Your task to perform on an android device: delete a single message in the gmail app Image 0: 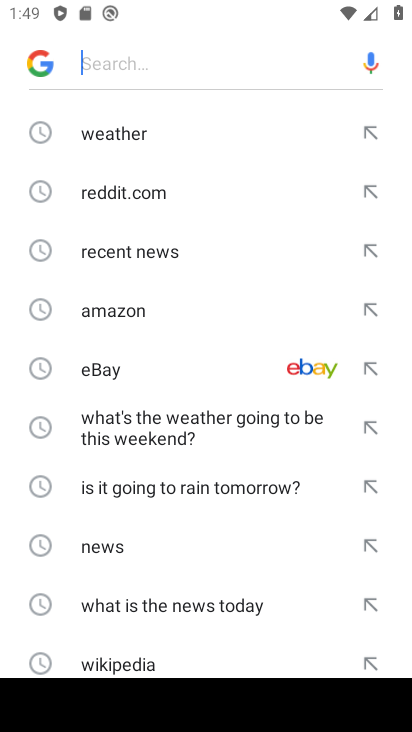
Step 0: press home button
Your task to perform on an android device: delete a single message in the gmail app Image 1: 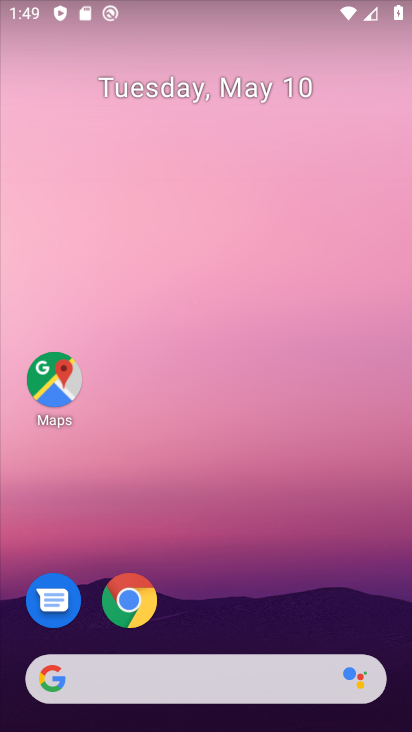
Step 1: drag from (235, 659) to (231, 287)
Your task to perform on an android device: delete a single message in the gmail app Image 2: 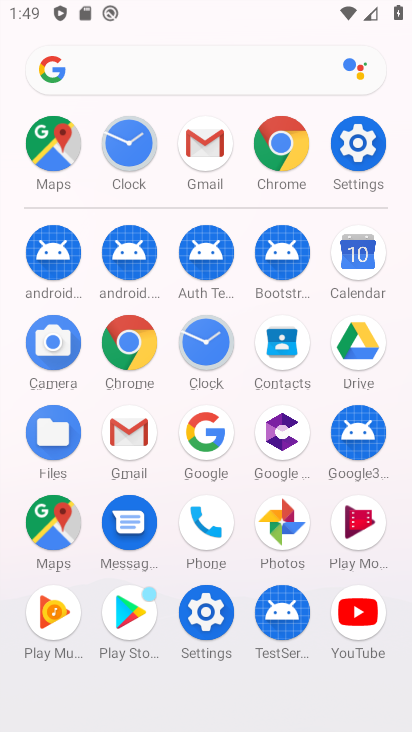
Step 2: click (133, 452)
Your task to perform on an android device: delete a single message in the gmail app Image 3: 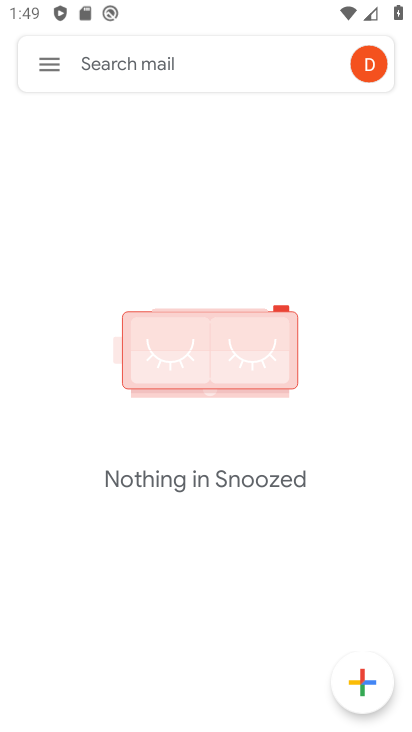
Step 3: click (60, 64)
Your task to perform on an android device: delete a single message in the gmail app Image 4: 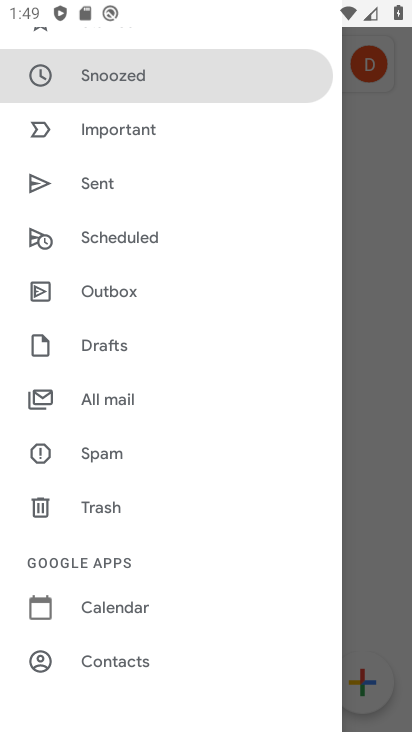
Step 4: click (152, 403)
Your task to perform on an android device: delete a single message in the gmail app Image 5: 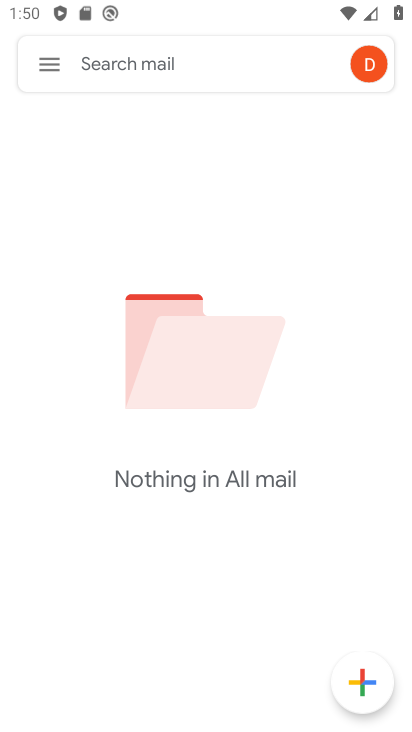
Step 5: task complete